Your task to perform on an android device: Play the last video I watched on Youtube Image 0: 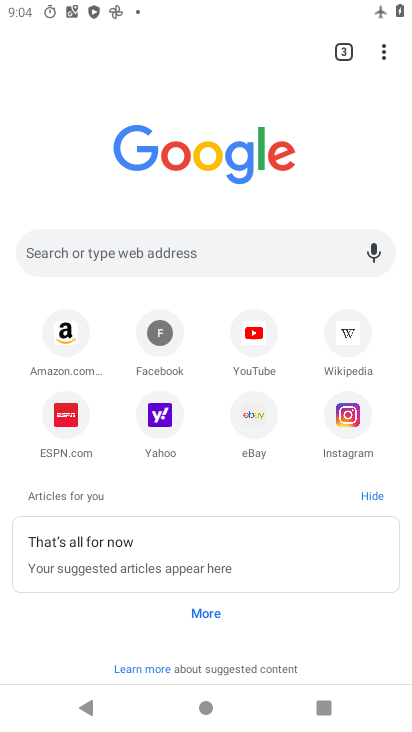
Step 0: press home button
Your task to perform on an android device: Play the last video I watched on Youtube Image 1: 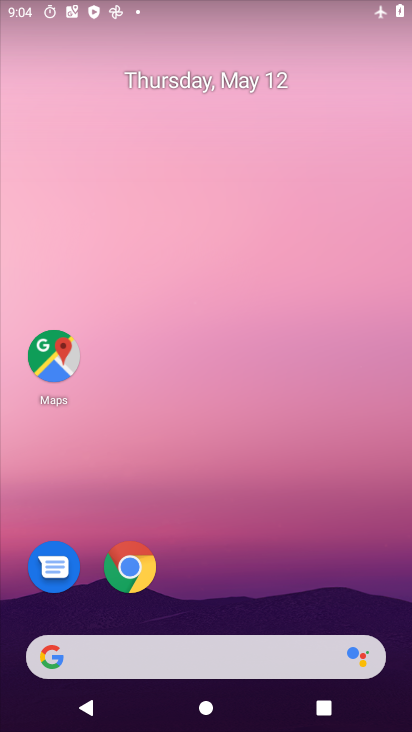
Step 1: drag from (262, 664) to (307, 149)
Your task to perform on an android device: Play the last video I watched on Youtube Image 2: 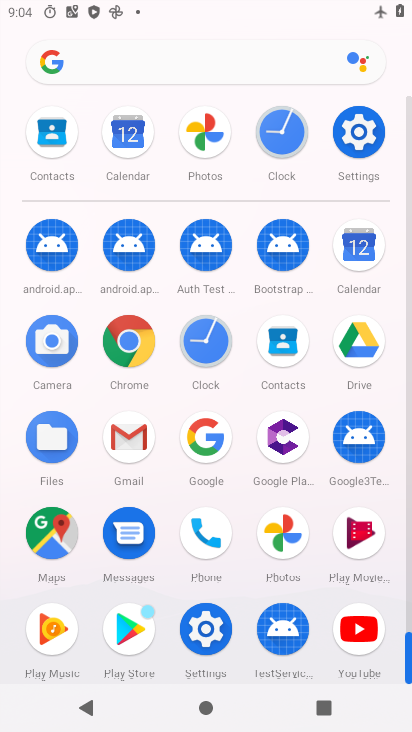
Step 2: click (363, 635)
Your task to perform on an android device: Play the last video I watched on Youtube Image 3: 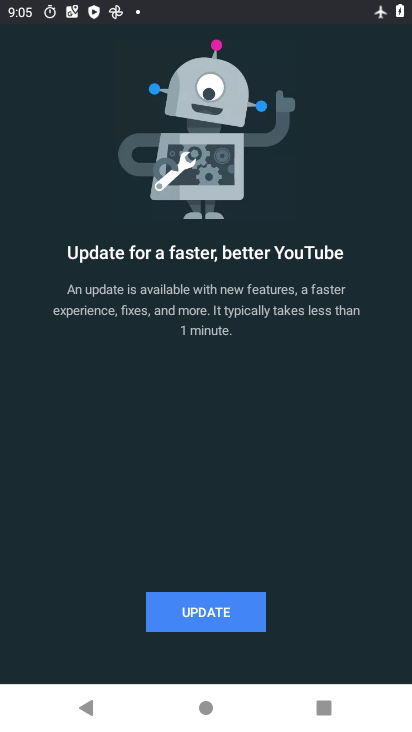
Step 3: click (214, 620)
Your task to perform on an android device: Play the last video I watched on Youtube Image 4: 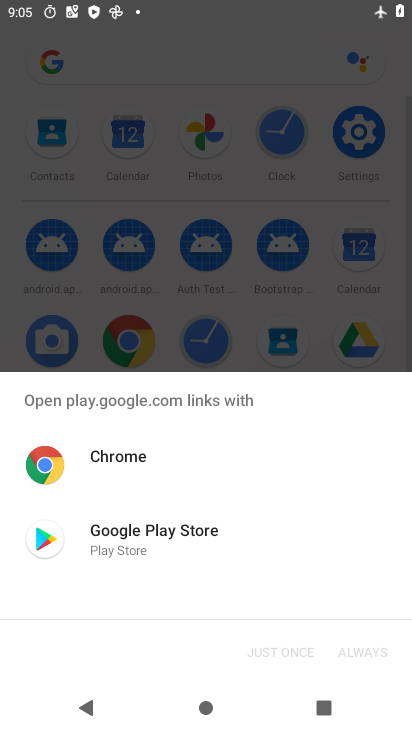
Step 4: click (225, 543)
Your task to perform on an android device: Play the last video I watched on Youtube Image 5: 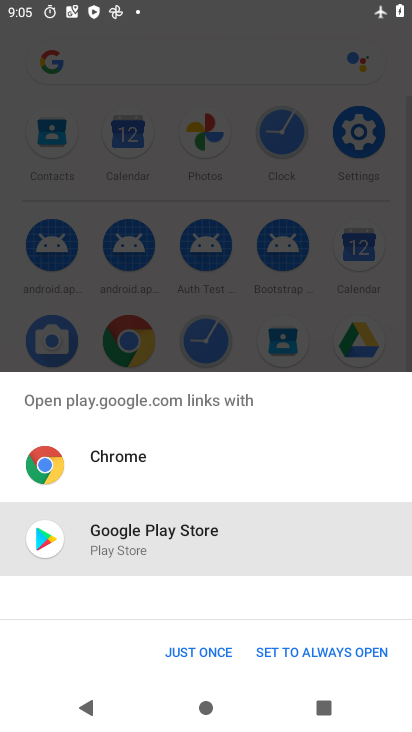
Step 5: click (200, 657)
Your task to perform on an android device: Play the last video I watched on Youtube Image 6: 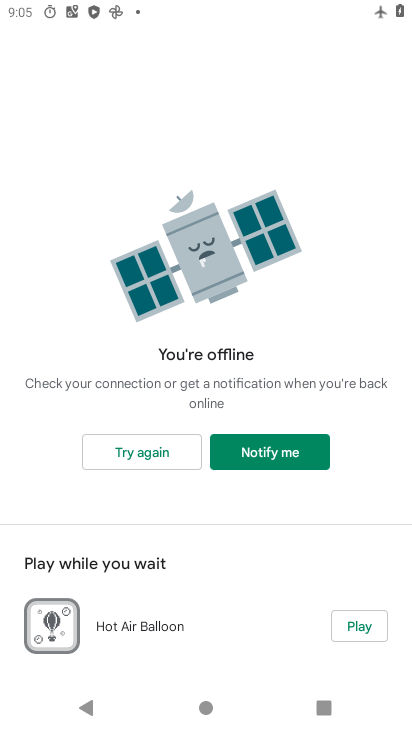
Step 6: click (165, 464)
Your task to perform on an android device: Play the last video I watched on Youtube Image 7: 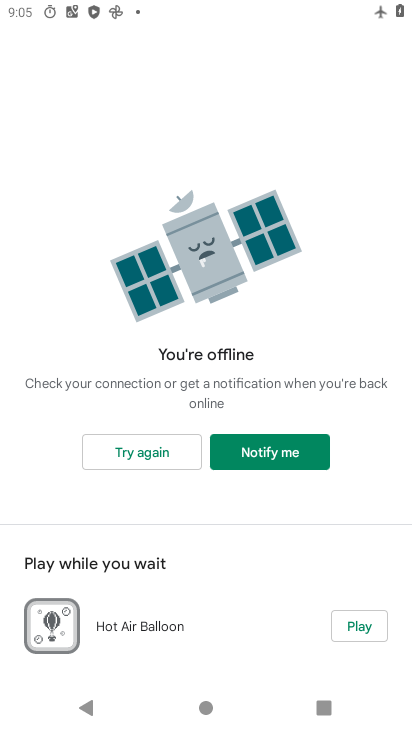
Step 7: task complete